Your task to perform on an android device: Go to battery settings Image 0: 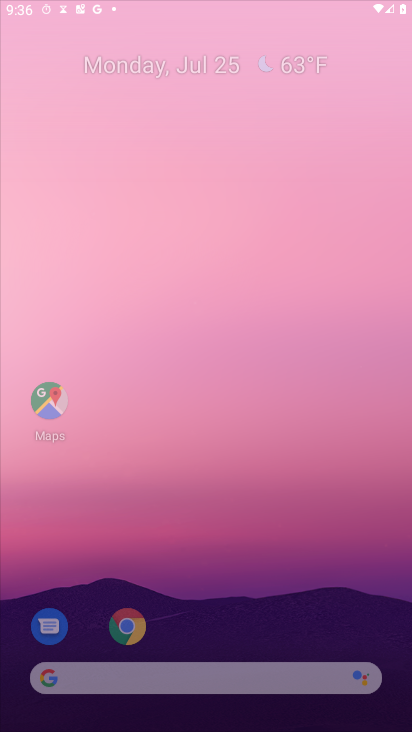
Step 0: click (305, 118)
Your task to perform on an android device: Go to battery settings Image 1: 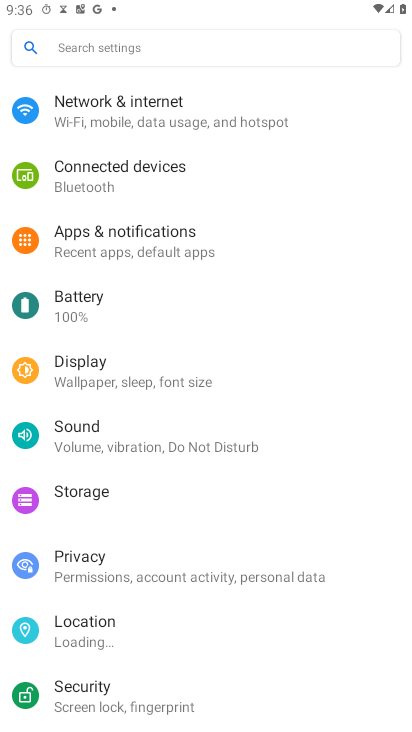
Step 1: drag from (278, 609) to (257, 162)
Your task to perform on an android device: Go to battery settings Image 2: 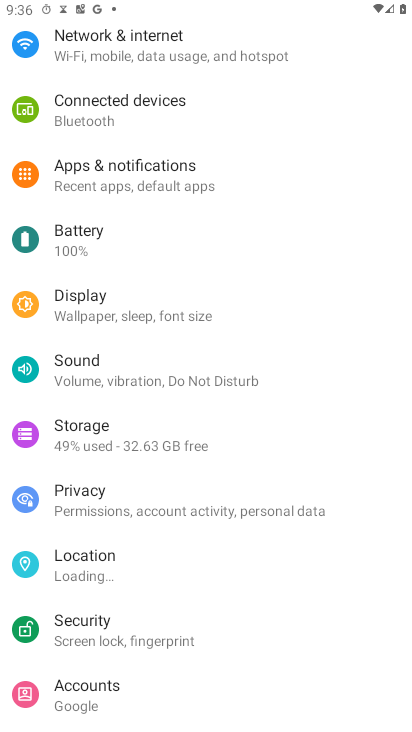
Step 2: click (75, 245)
Your task to perform on an android device: Go to battery settings Image 3: 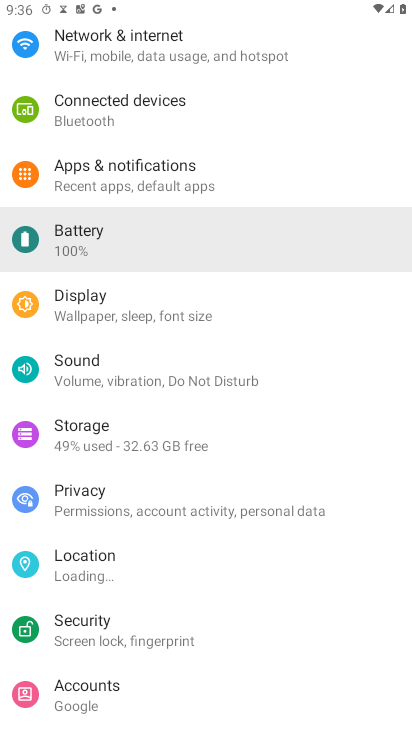
Step 3: click (75, 245)
Your task to perform on an android device: Go to battery settings Image 4: 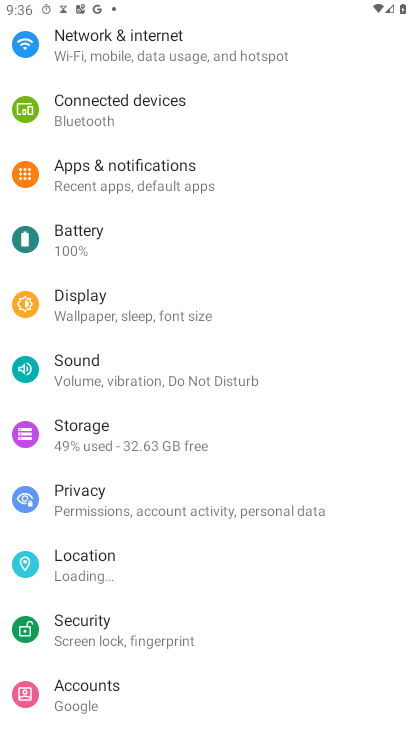
Step 4: click (75, 245)
Your task to perform on an android device: Go to battery settings Image 5: 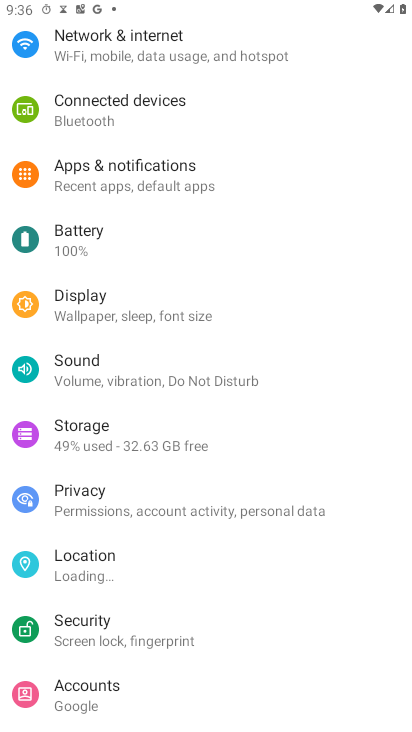
Step 5: click (78, 245)
Your task to perform on an android device: Go to battery settings Image 6: 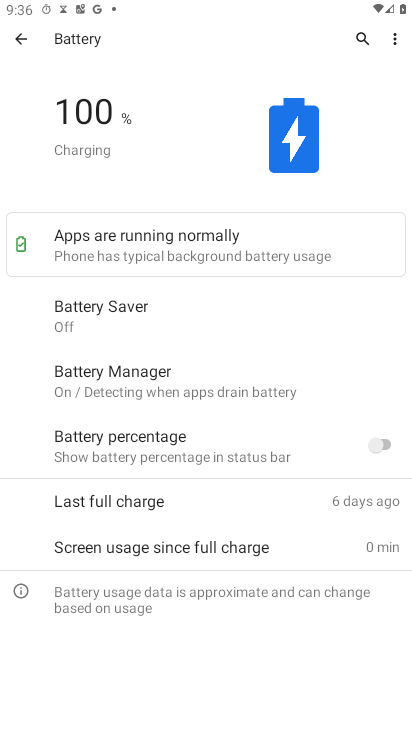
Step 6: task complete